Your task to perform on an android device: Empty the shopping cart on amazon.com. Search for apple airpods on amazon.com, select the first entry, and add it to the cart. Image 0: 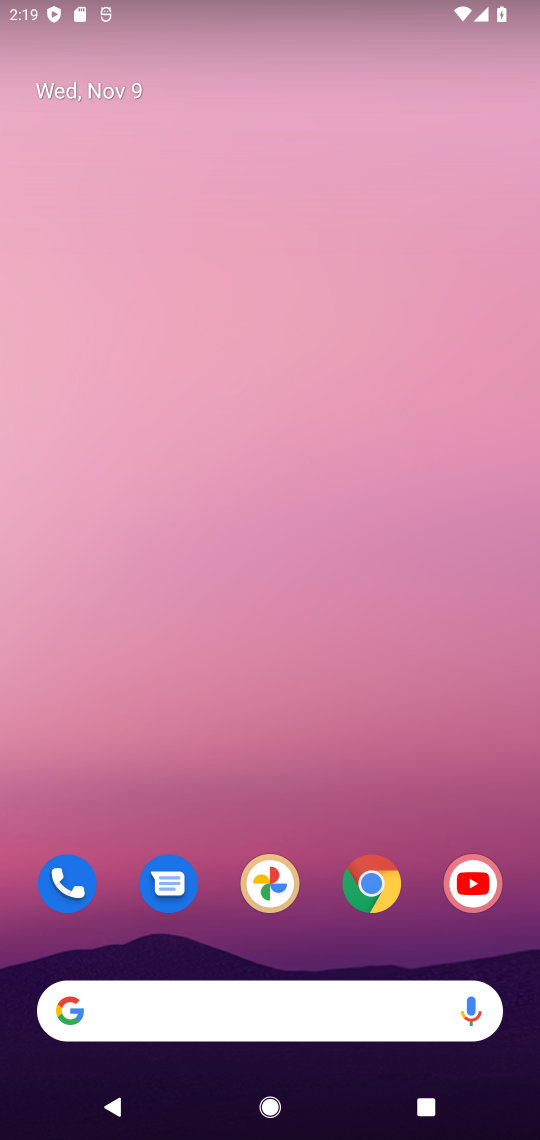
Step 0: click (372, 891)
Your task to perform on an android device: Empty the shopping cart on amazon.com. Search for apple airpods on amazon.com, select the first entry, and add it to the cart. Image 1: 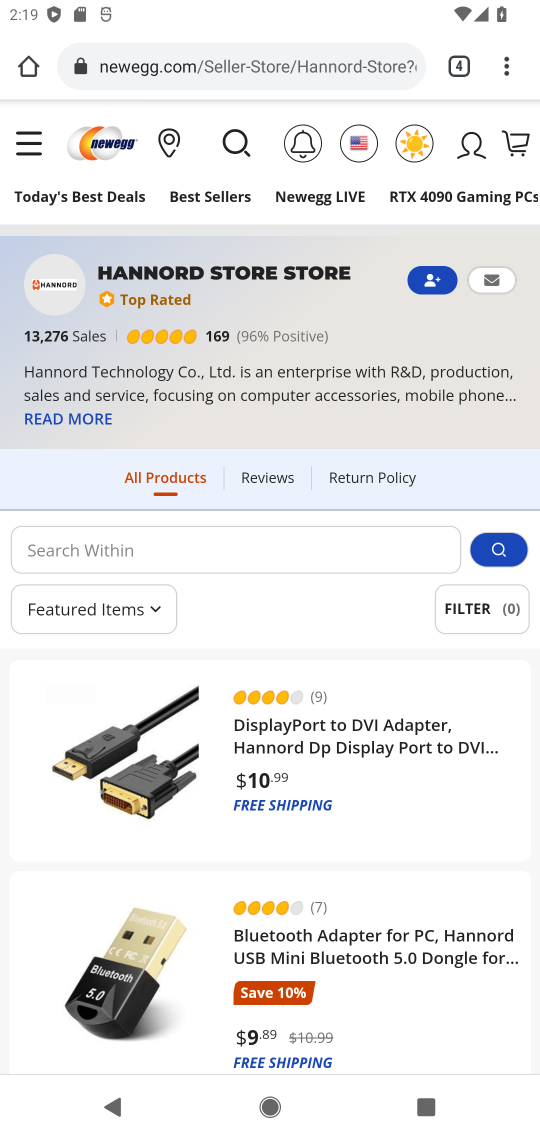
Step 1: click (455, 58)
Your task to perform on an android device: Empty the shopping cart on amazon.com. Search for apple airpods on amazon.com, select the first entry, and add it to the cart. Image 2: 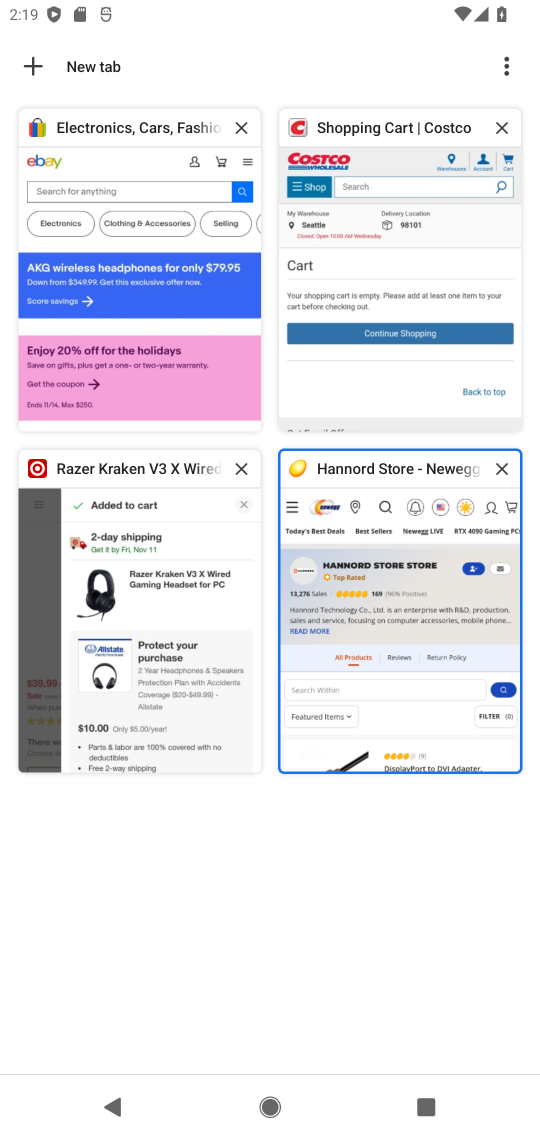
Step 2: click (29, 71)
Your task to perform on an android device: Empty the shopping cart on amazon.com. Search for apple airpods on amazon.com, select the first entry, and add it to the cart. Image 3: 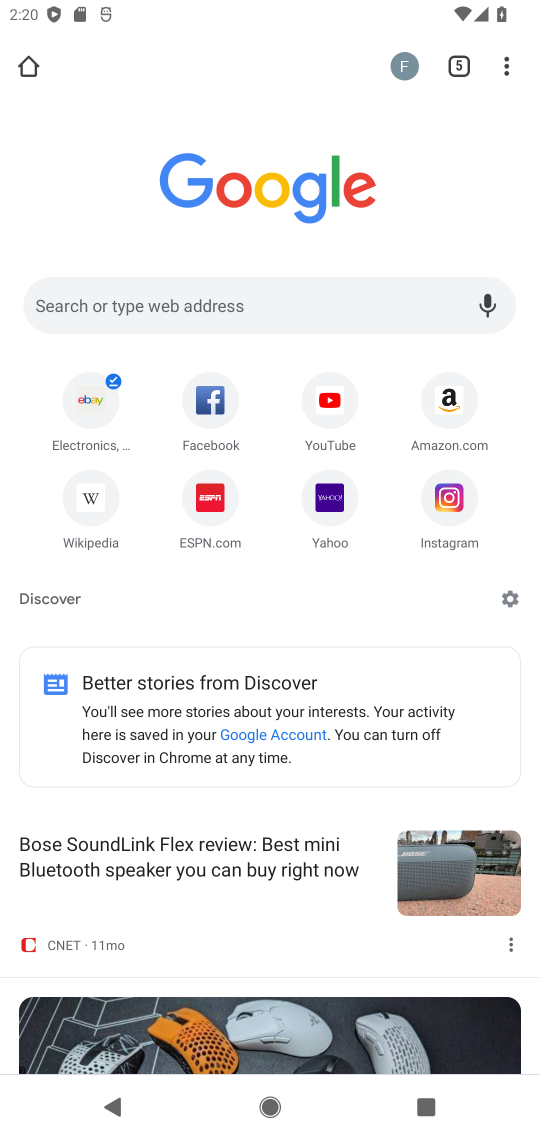
Step 3: click (186, 282)
Your task to perform on an android device: Empty the shopping cart on amazon.com. Search for apple airpods on amazon.com, select the first entry, and add it to the cart. Image 4: 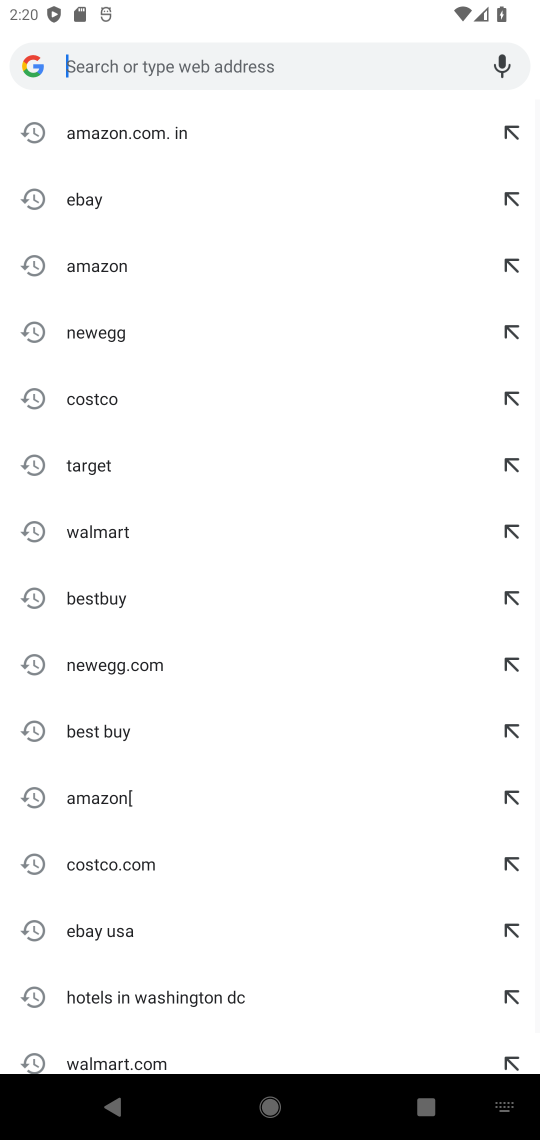
Step 4: click (72, 268)
Your task to perform on an android device: Empty the shopping cart on amazon.com. Search for apple airpods on amazon.com, select the first entry, and add it to the cart. Image 5: 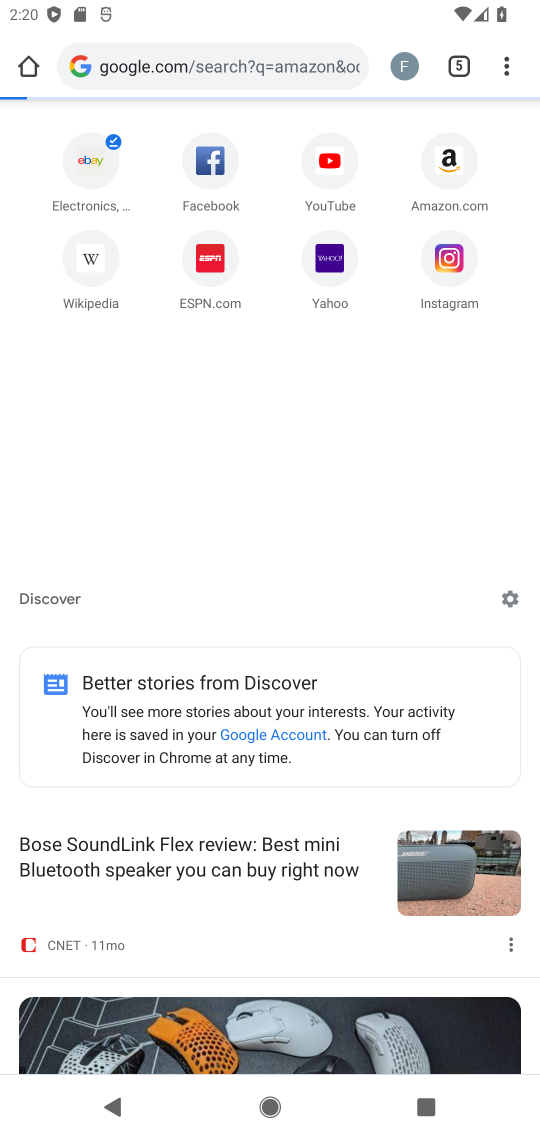
Step 5: click (453, 176)
Your task to perform on an android device: Empty the shopping cart on amazon.com. Search for apple airpods on amazon.com, select the first entry, and add it to the cart. Image 6: 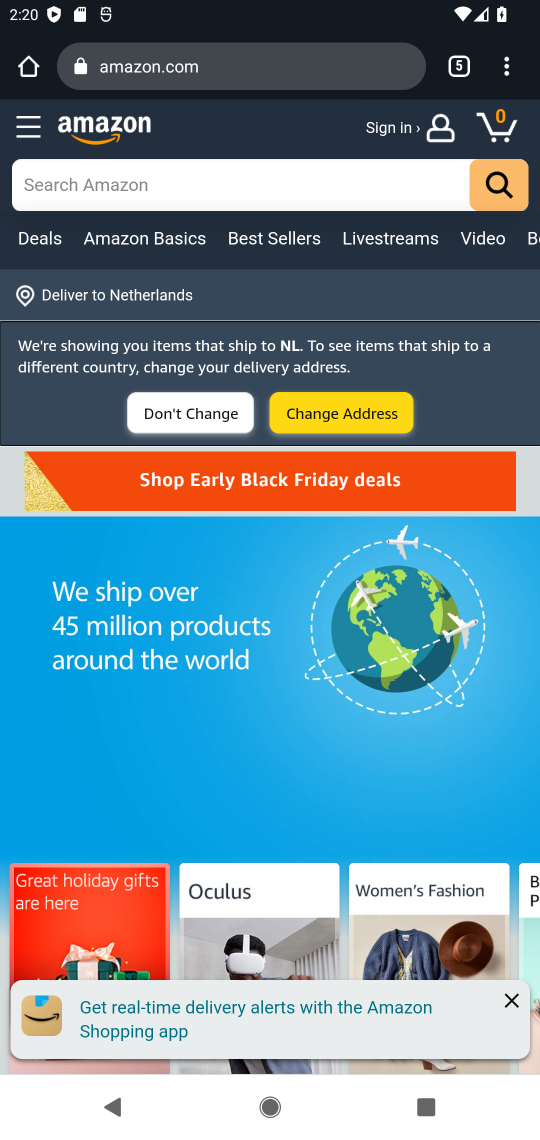
Step 6: click (131, 192)
Your task to perform on an android device: Empty the shopping cart on amazon.com. Search for apple airpods on amazon.com, select the first entry, and add it to the cart. Image 7: 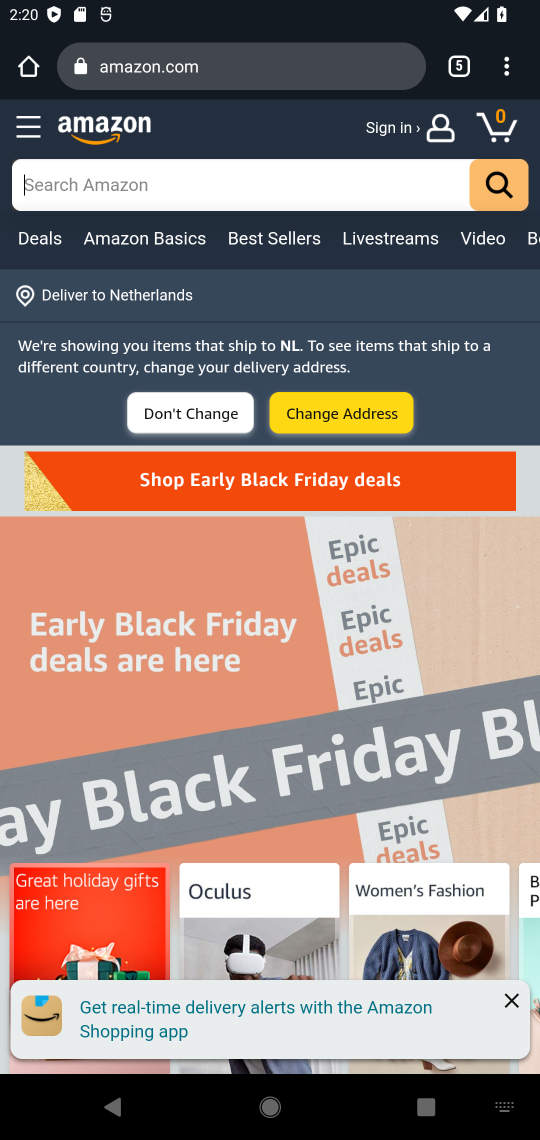
Step 7: type "apple airpods"
Your task to perform on an android device: Empty the shopping cart on amazon.com. Search for apple airpods on amazon.com, select the first entry, and add it to the cart. Image 8: 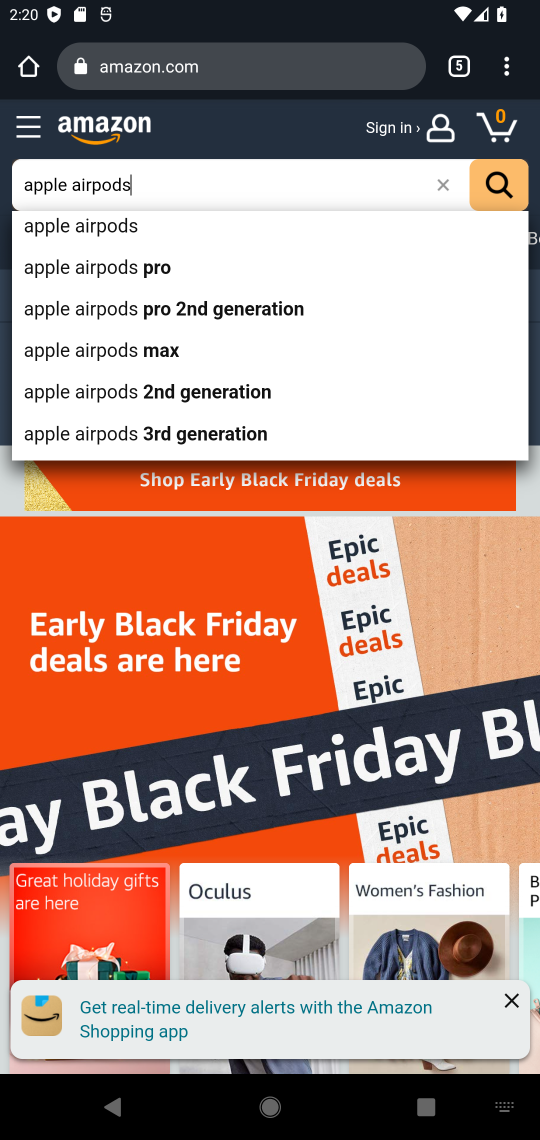
Step 8: click (113, 224)
Your task to perform on an android device: Empty the shopping cart on amazon.com. Search for apple airpods on amazon.com, select the first entry, and add it to the cart. Image 9: 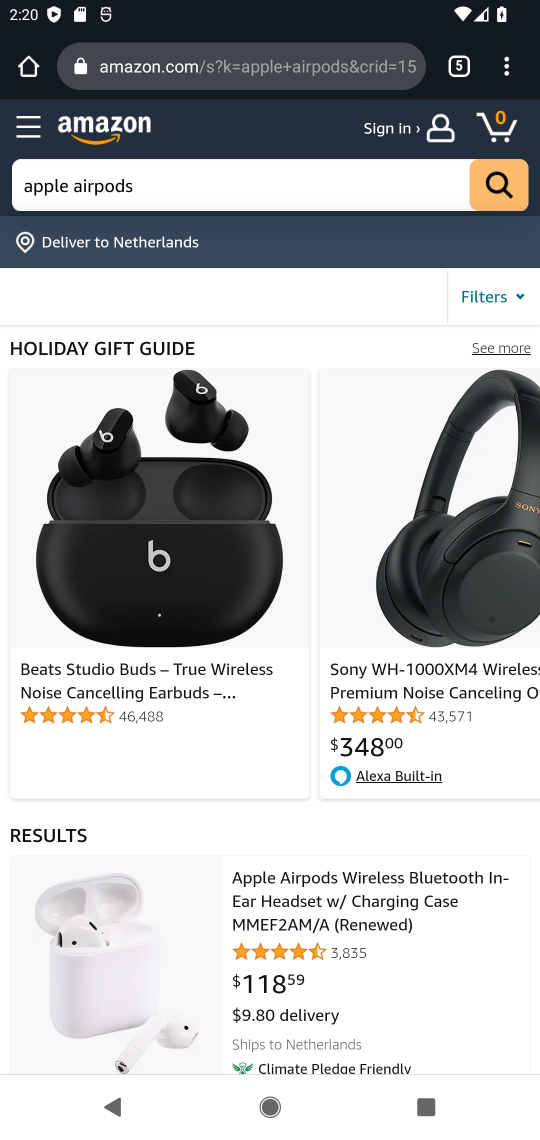
Step 9: click (325, 898)
Your task to perform on an android device: Empty the shopping cart on amazon.com. Search for apple airpods on amazon.com, select the first entry, and add it to the cart. Image 10: 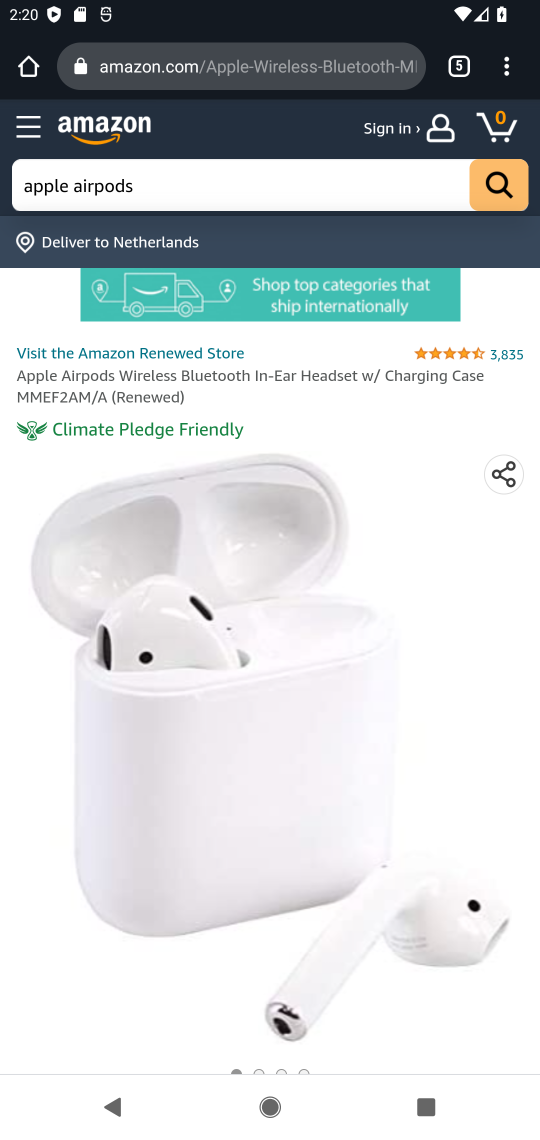
Step 10: drag from (427, 1020) to (361, 401)
Your task to perform on an android device: Empty the shopping cart on amazon.com. Search for apple airpods on amazon.com, select the first entry, and add it to the cart. Image 11: 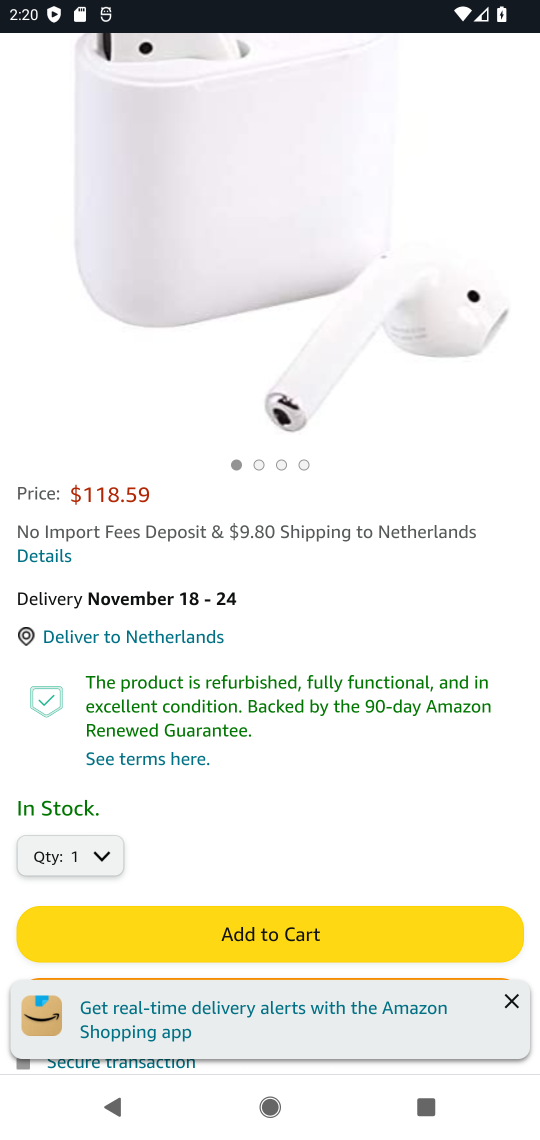
Step 11: click (300, 927)
Your task to perform on an android device: Empty the shopping cart on amazon.com. Search for apple airpods on amazon.com, select the first entry, and add it to the cart. Image 12: 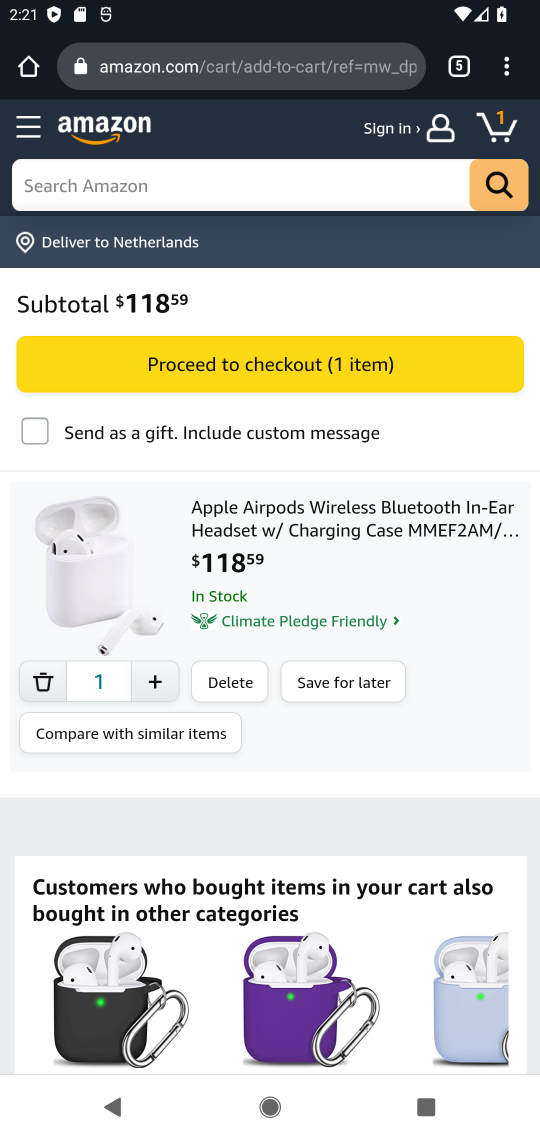
Step 12: task complete